Your task to perform on an android device: Go to CNN.com Image 0: 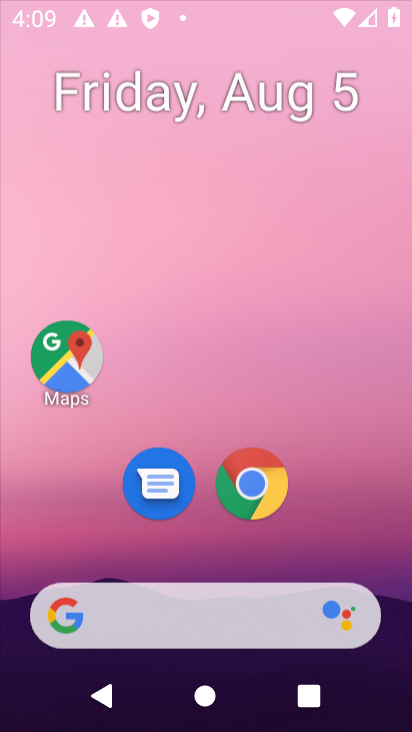
Step 0: drag from (198, 412) to (191, 97)
Your task to perform on an android device: Go to CNN.com Image 1: 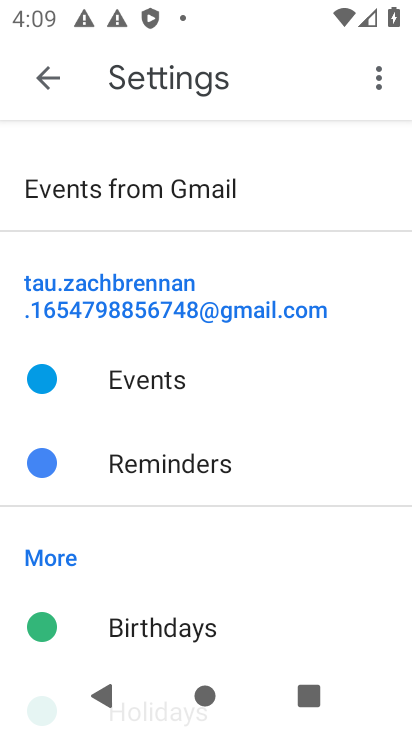
Step 1: click (39, 84)
Your task to perform on an android device: Go to CNN.com Image 2: 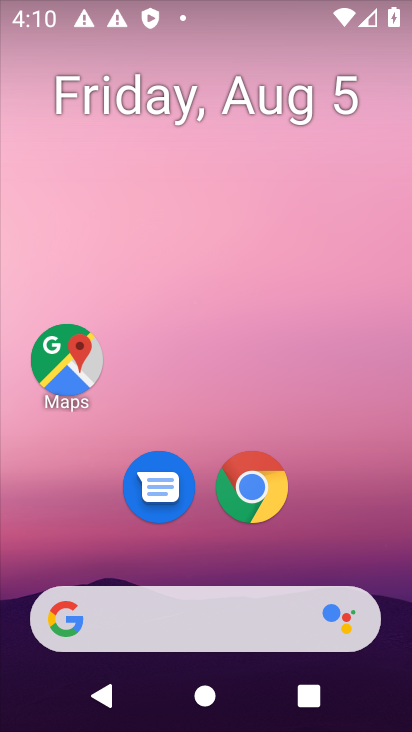
Step 2: click (254, 612)
Your task to perform on an android device: Go to CNN.com Image 3: 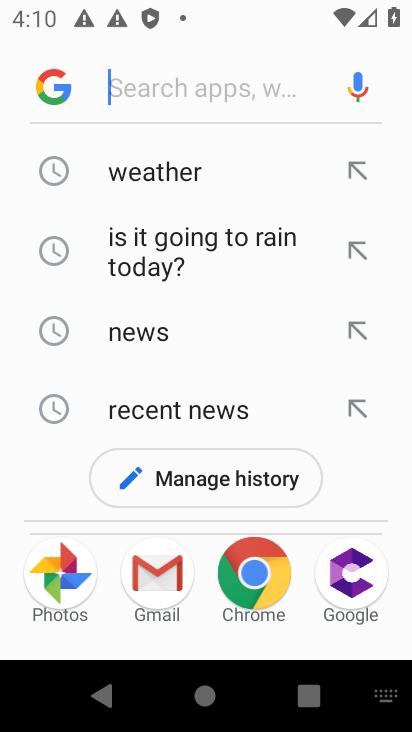
Step 3: type "CNN.com"
Your task to perform on an android device: Go to CNN.com Image 4: 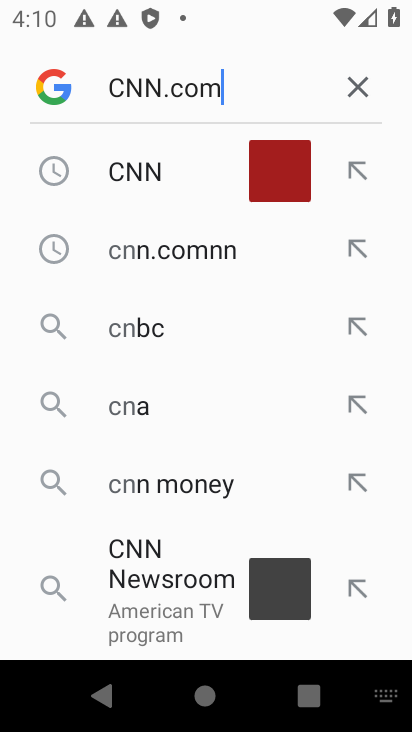
Step 4: press enter
Your task to perform on an android device: Go to CNN.com Image 5: 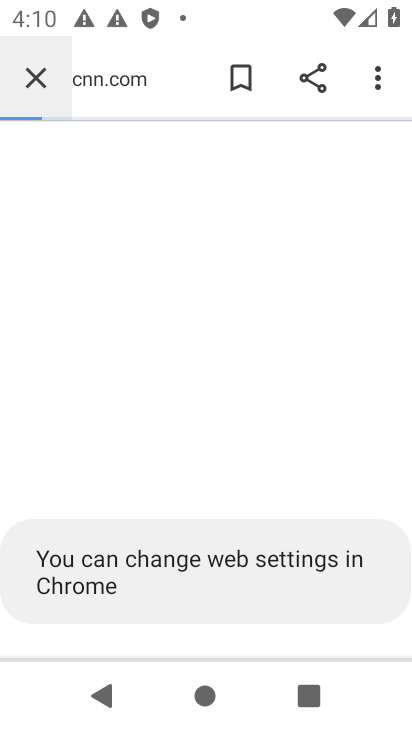
Step 5: task complete